Your task to perform on an android device: turn on the 12-hour format for clock Image 0: 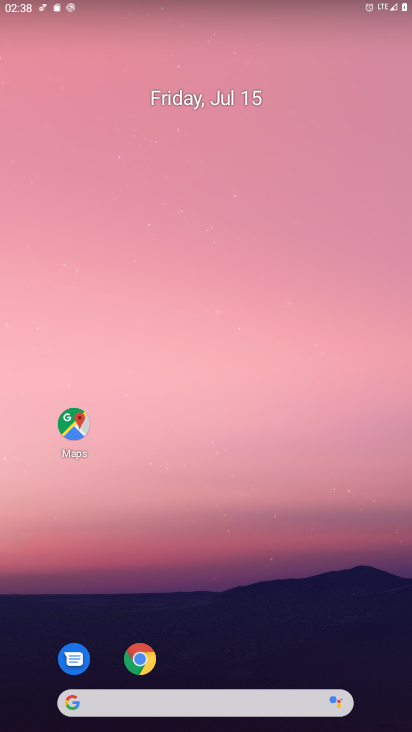
Step 0: drag from (240, 666) to (315, 181)
Your task to perform on an android device: turn on the 12-hour format for clock Image 1: 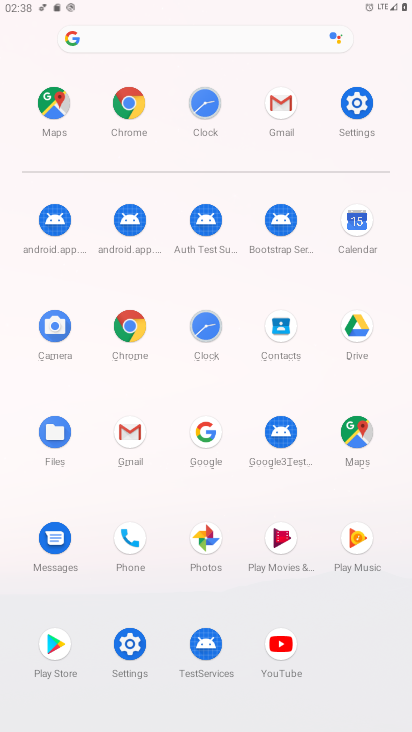
Step 1: click (212, 327)
Your task to perform on an android device: turn on the 12-hour format for clock Image 2: 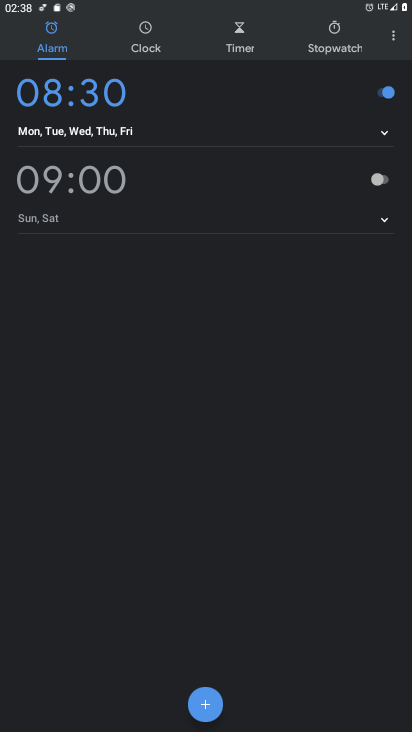
Step 2: click (387, 33)
Your task to perform on an android device: turn on the 12-hour format for clock Image 3: 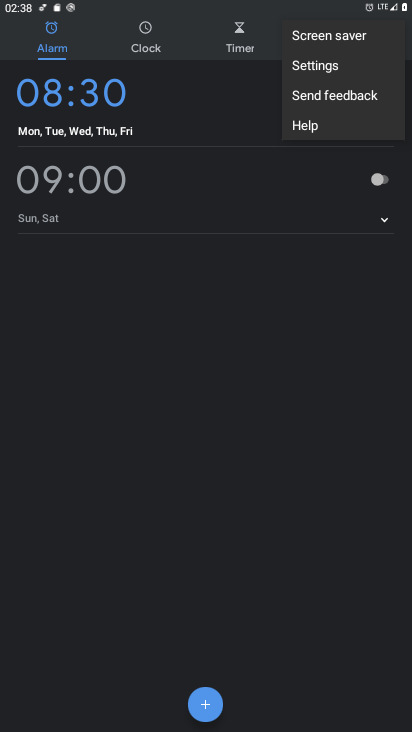
Step 3: click (314, 64)
Your task to perform on an android device: turn on the 12-hour format for clock Image 4: 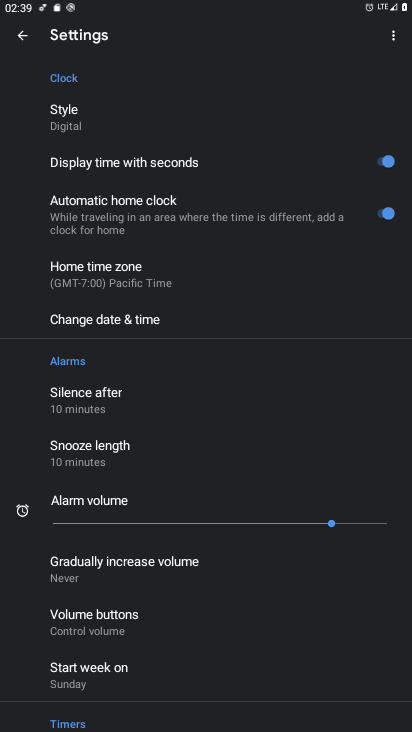
Step 4: click (138, 323)
Your task to perform on an android device: turn on the 12-hour format for clock Image 5: 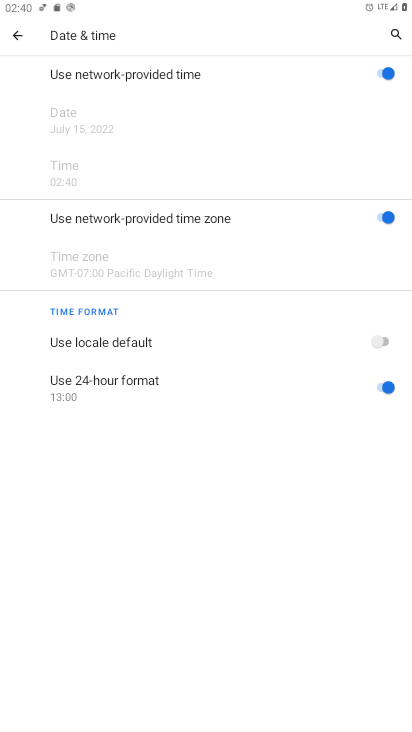
Step 5: task complete